Your task to perform on an android device: Open calendar and show me the fourth week of next month Image 0: 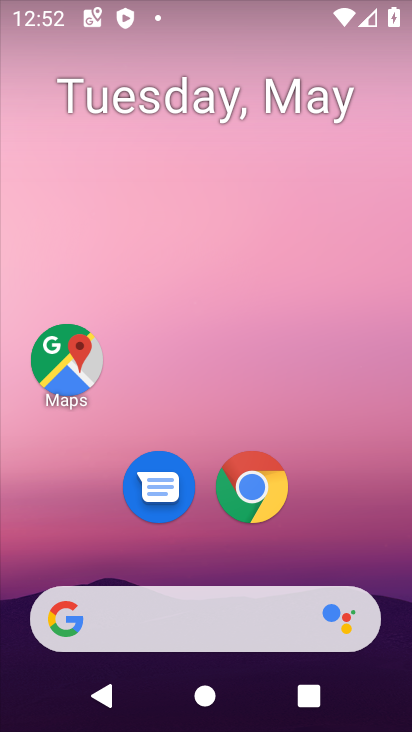
Step 0: click (232, 98)
Your task to perform on an android device: Open calendar and show me the fourth week of next month Image 1: 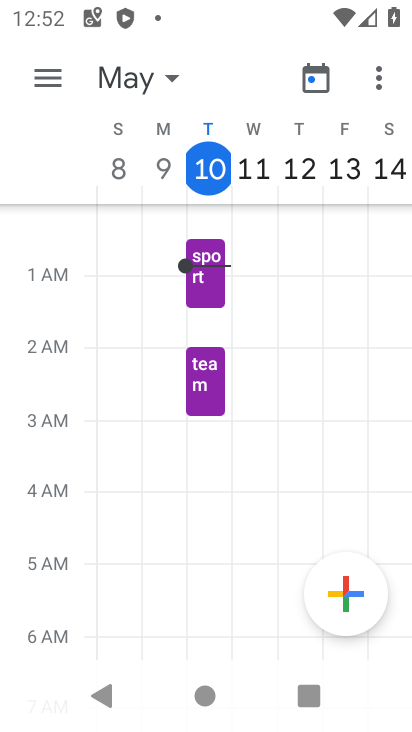
Step 1: click (143, 84)
Your task to perform on an android device: Open calendar and show me the fourth week of next month Image 2: 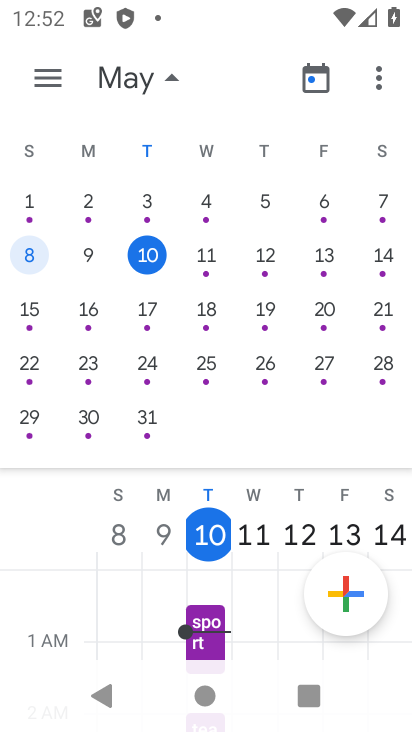
Step 2: drag from (341, 258) to (13, 226)
Your task to perform on an android device: Open calendar and show me the fourth week of next month Image 3: 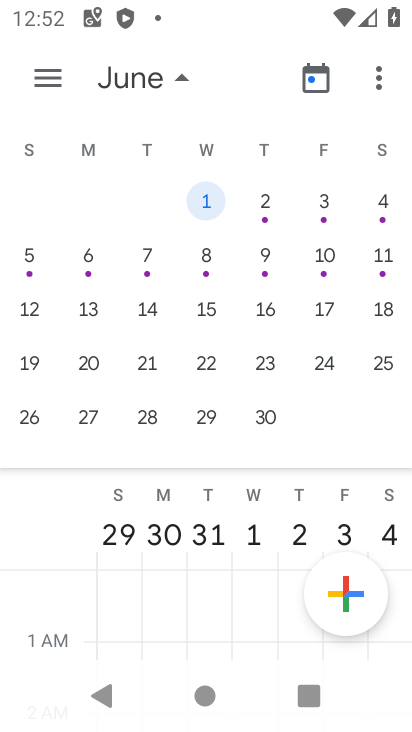
Step 3: click (74, 364)
Your task to perform on an android device: Open calendar and show me the fourth week of next month Image 4: 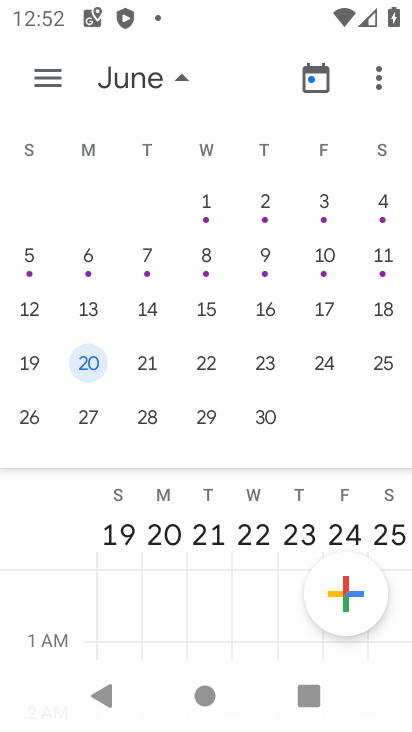
Step 4: task complete